Your task to perform on an android device: Go to Android settings Image 0: 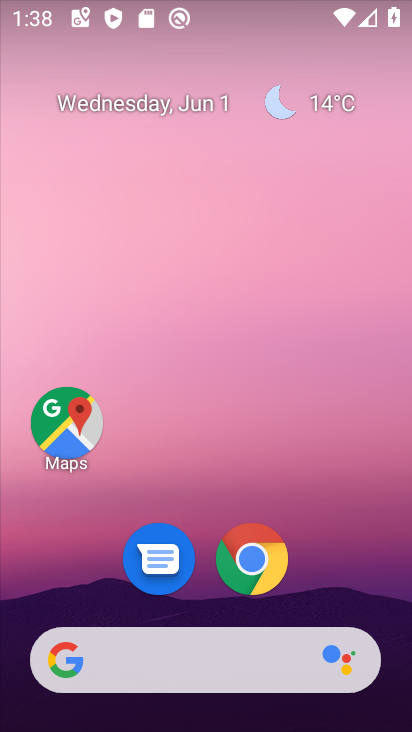
Step 0: drag from (369, 591) to (310, 156)
Your task to perform on an android device: Go to Android settings Image 1: 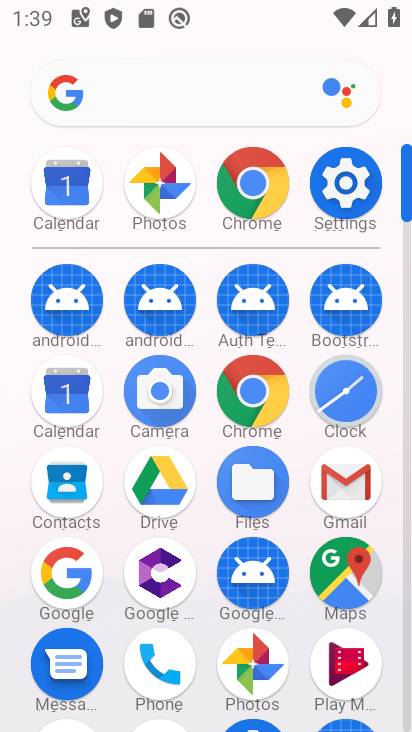
Step 1: click (353, 190)
Your task to perform on an android device: Go to Android settings Image 2: 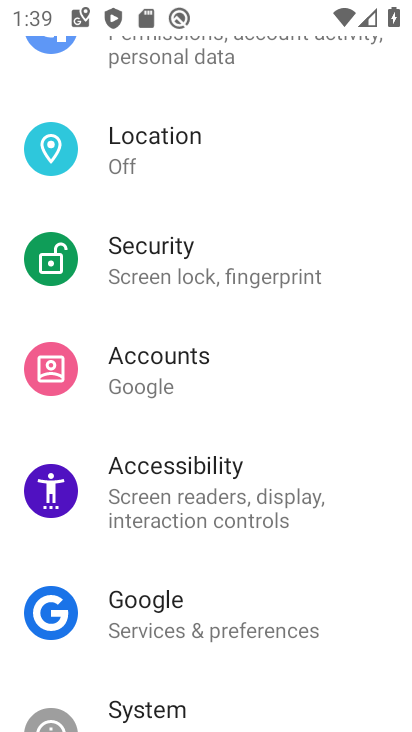
Step 2: task complete